Your task to perform on an android device: toggle wifi Image 0: 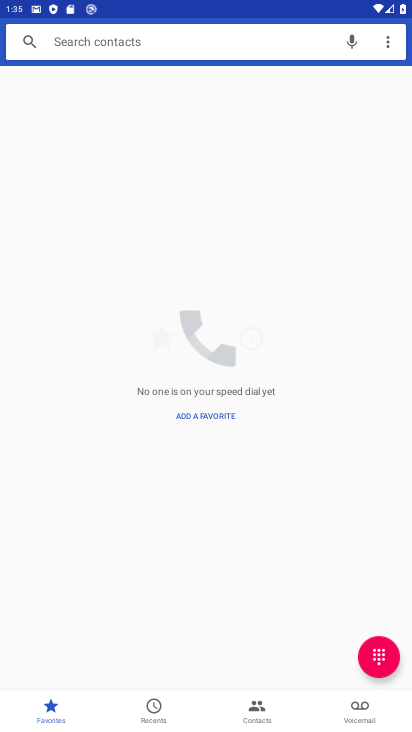
Step 0: press back button
Your task to perform on an android device: toggle wifi Image 1: 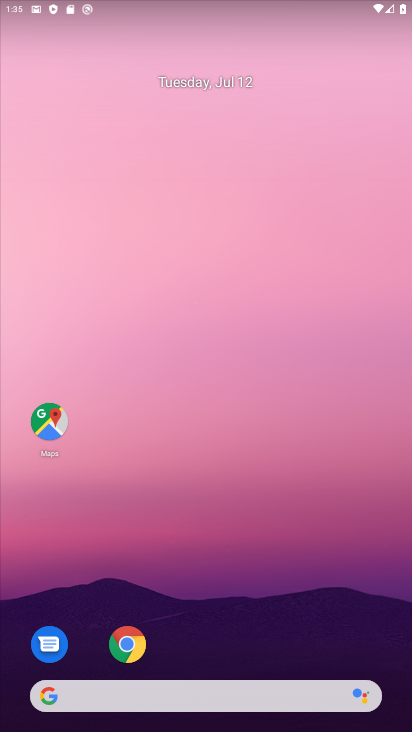
Step 1: drag from (53, 6) to (52, 484)
Your task to perform on an android device: toggle wifi Image 2: 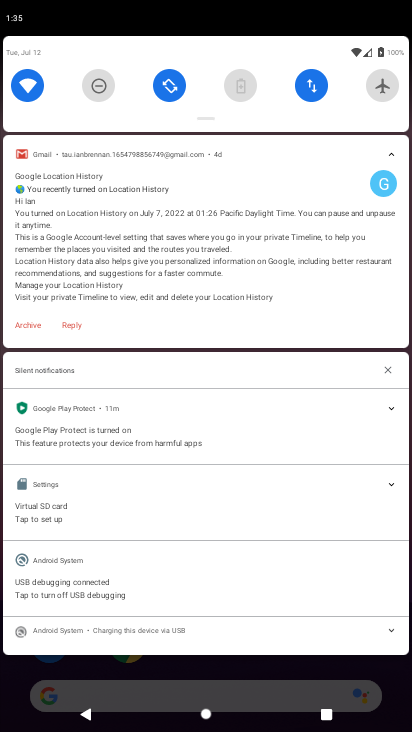
Step 2: click (17, 83)
Your task to perform on an android device: toggle wifi Image 3: 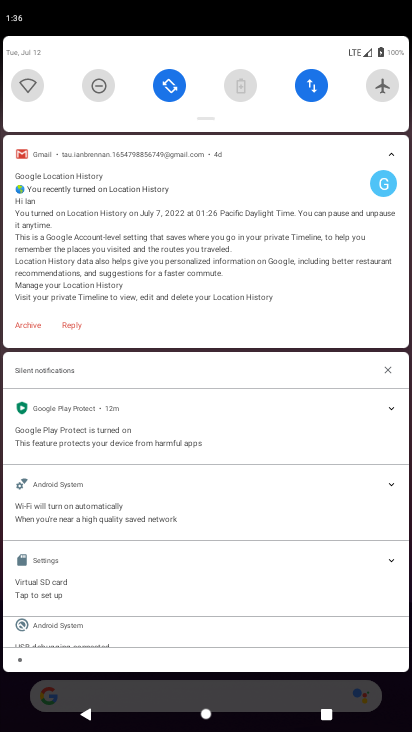
Step 3: click (35, 83)
Your task to perform on an android device: toggle wifi Image 4: 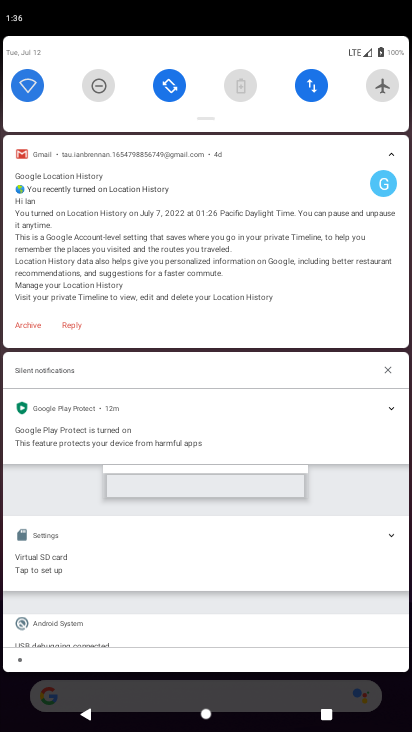
Step 4: task complete